Your task to perform on an android device: Search for vegetarian restaurants on Maps Image 0: 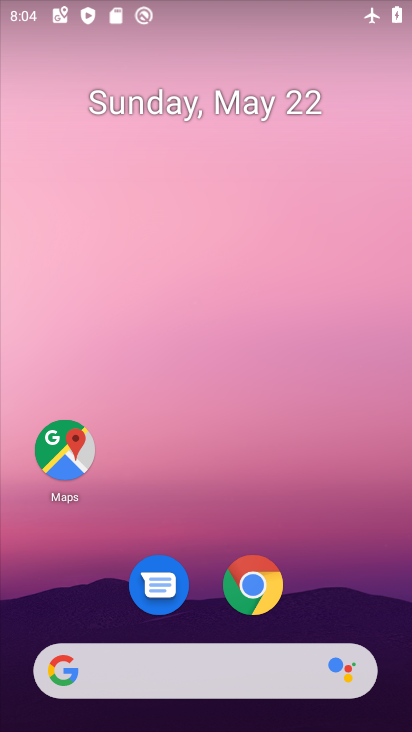
Step 0: click (60, 445)
Your task to perform on an android device: Search for vegetarian restaurants on Maps Image 1: 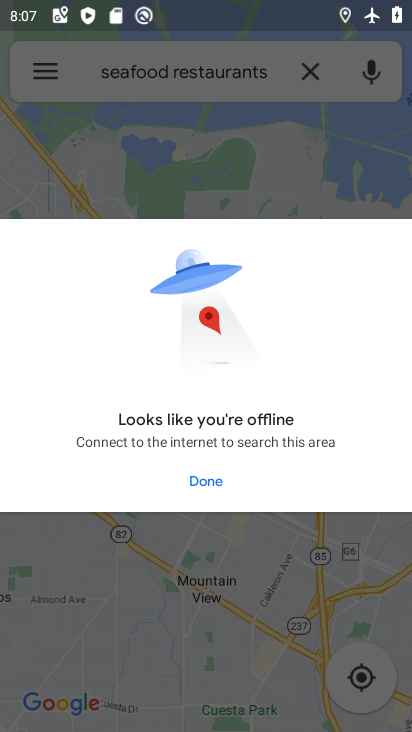
Step 1: task complete